Your task to perform on an android device: See recent photos Image 0: 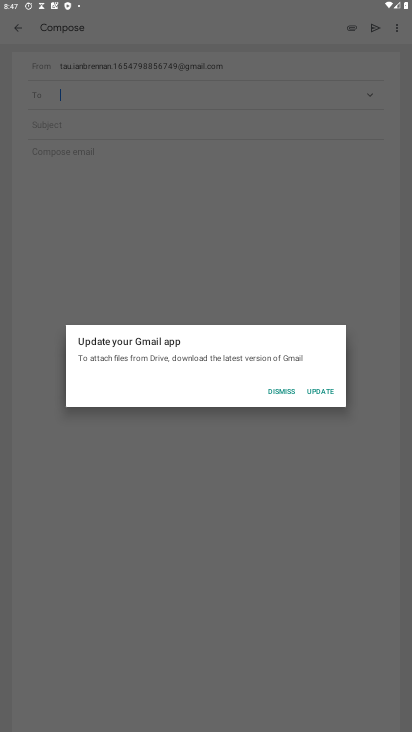
Step 0: press home button
Your task to perform on an android device: See recent photos Image 1: 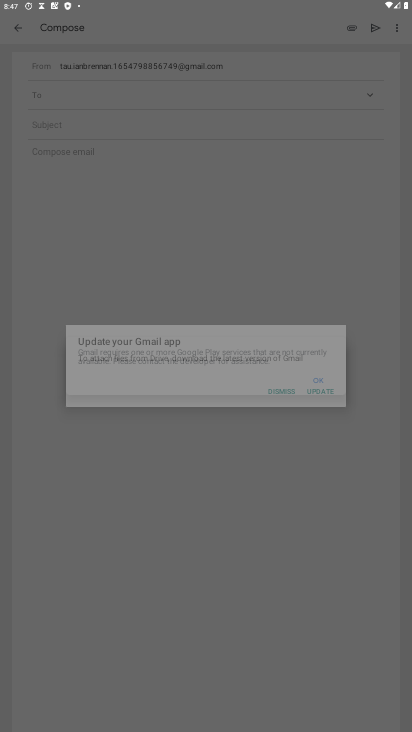
Step 1: press home button
Your task to perform on an android device: See recent photos Image 2: 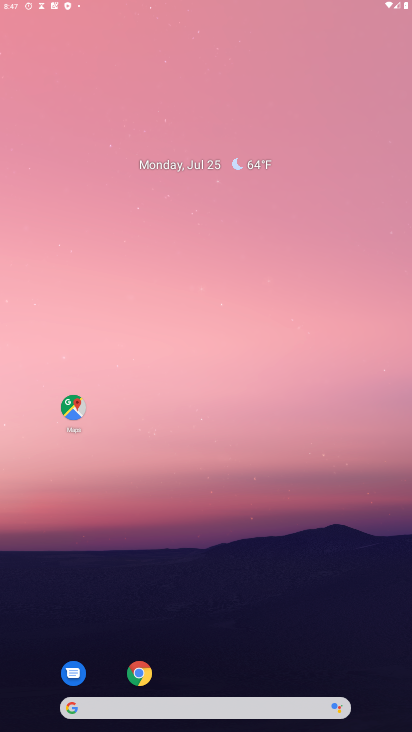
Step 2: drag from (218, 625) to (82, 535)
Your task to perform on an android device: See recent photos Image 3: 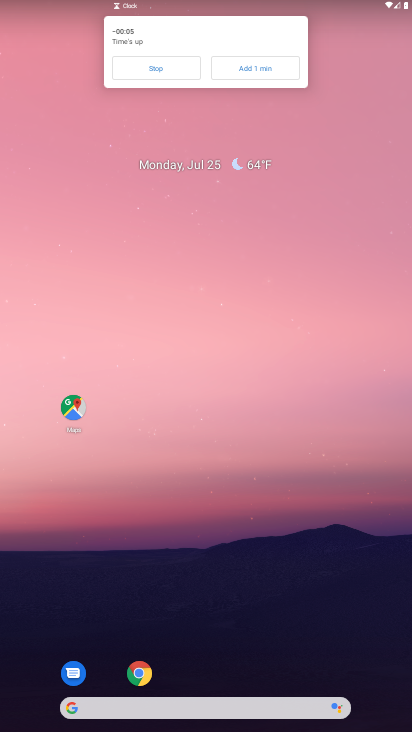
Step 3: click (141, 70)
Your task to perform on an android device: See recent photos Image 4: 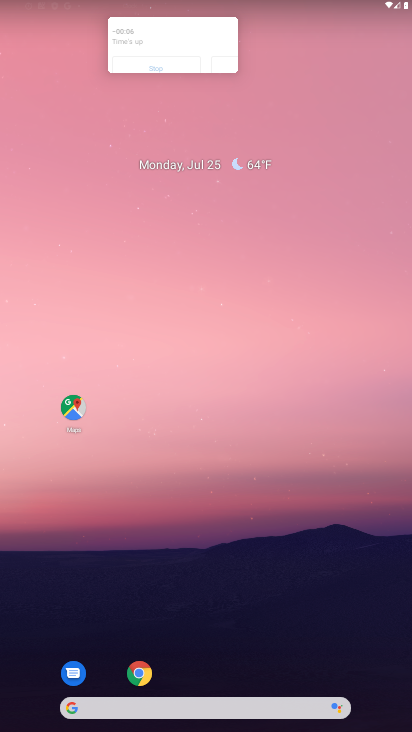
Step 4: drag from (213, 598) to (352, 68)
Your task to perform on an android device: See recent photos Image 5: 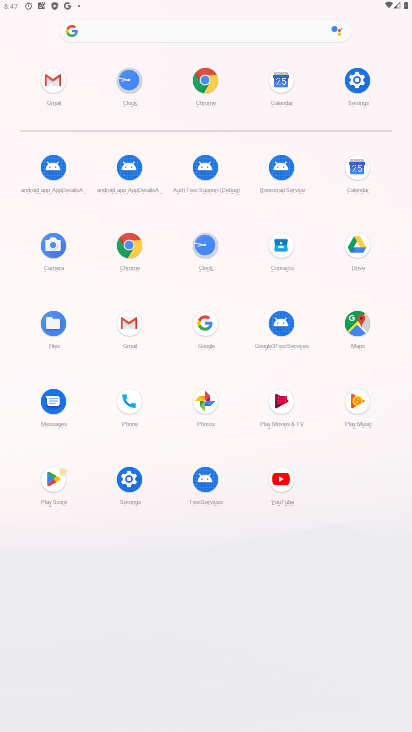
Step 5: click (198, 401)
Your task to perform on an android device: See recent photos Image 6: 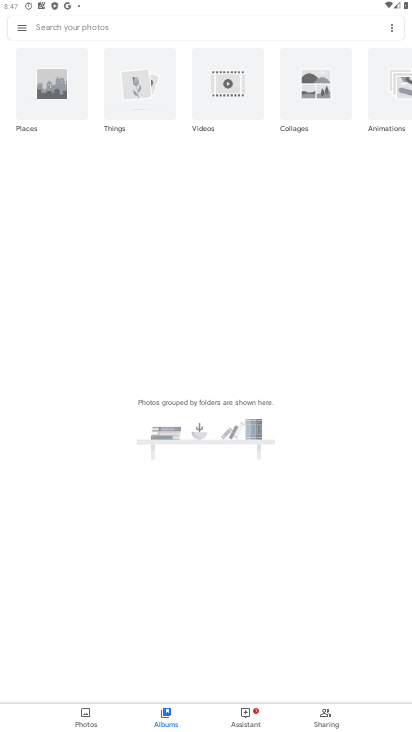
Step 6: drag from (253, 514) to (250, 223)
Your task to perform on an android device: See recent photos Image 7: 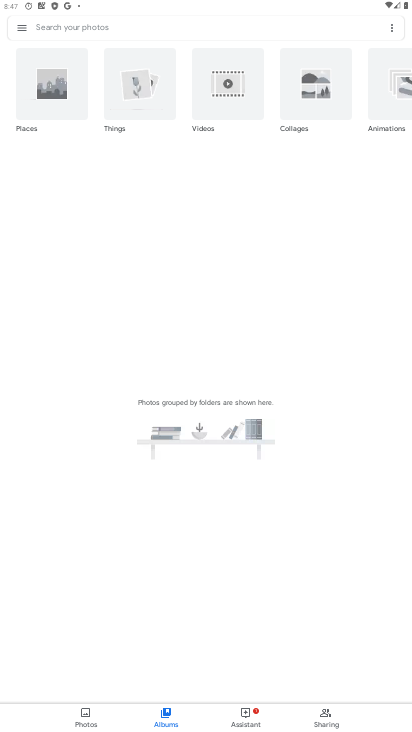
Step 7: drag from (250, 182) to (230, 545)
Your task to perform on an android device: See recent photos Image 8: 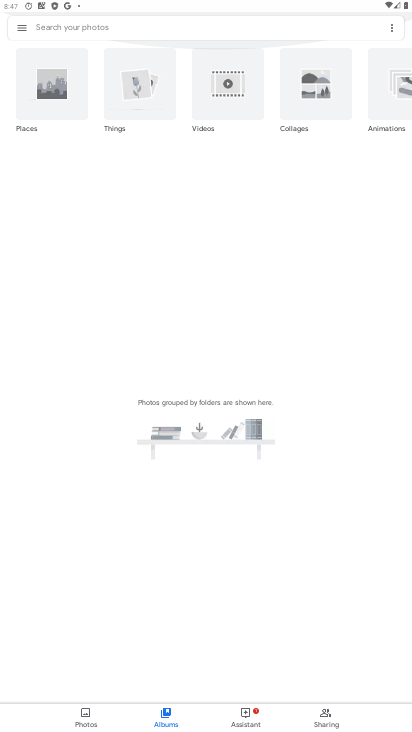
Step 8: drag from (240, 556) to (210, 338)
Your task to perform on an android device: See recent photos Image 9: 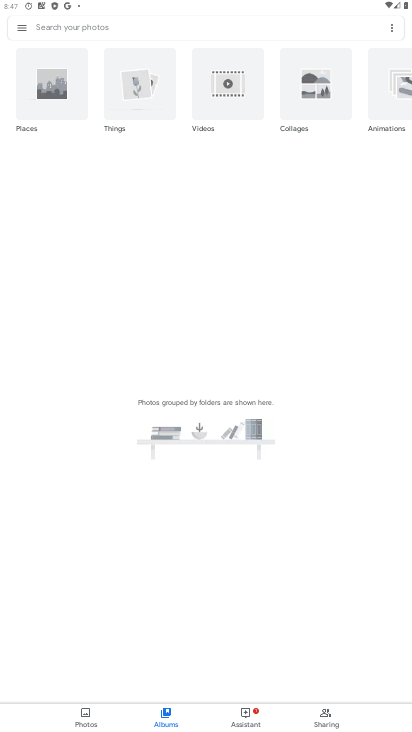
Step 9: click (81, 719)
Your task to perform on an android device: See recent photos Image 10: 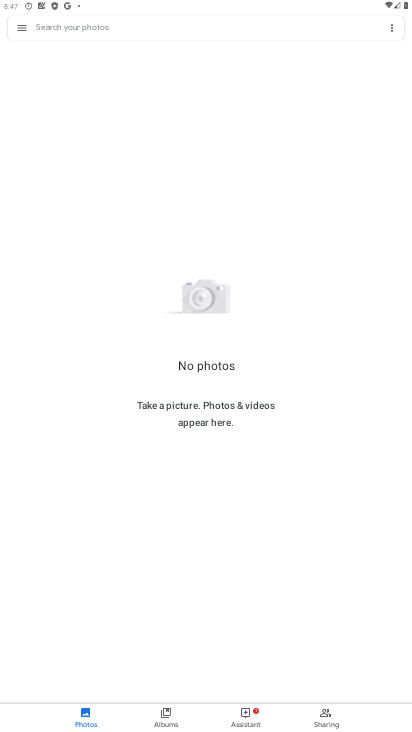
Step 10: task complete